Your task to perform on an android device: turn on bluetooth scan Image 0: 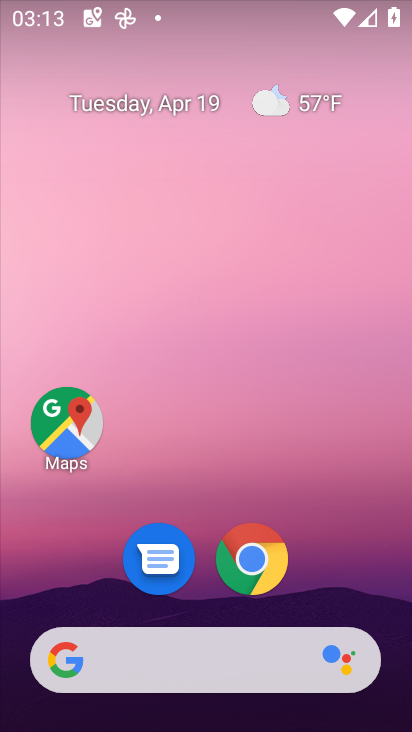
Step 0: drag from (210, 588) to (216, 116)
Your task to perform on an android device: turn on bluetooth scan Image 1: 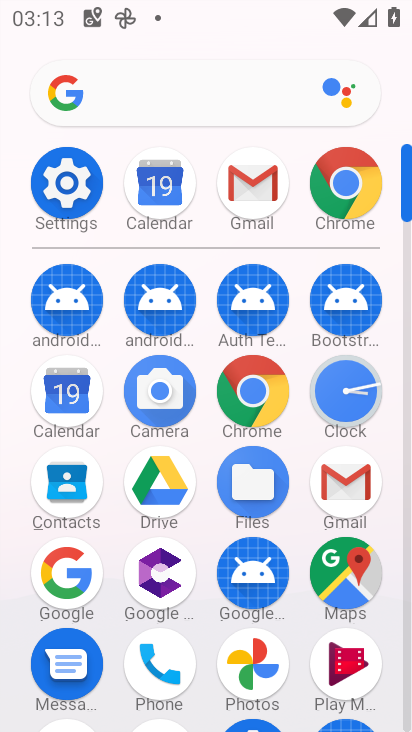
Step 1: click (62, 181)
Your task to perform on an android device: turn on bluetooth scan Image 2: 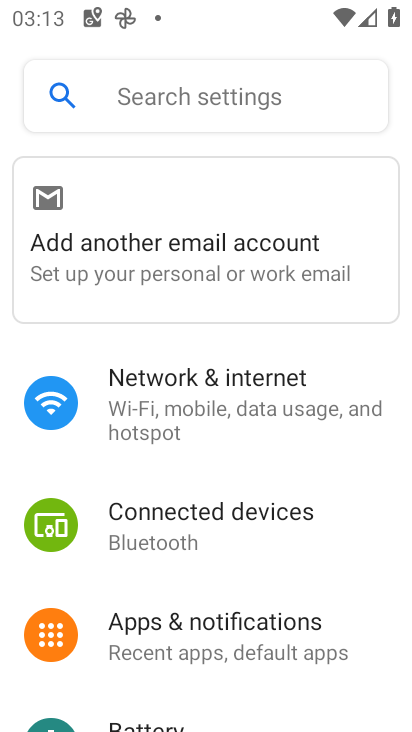
Step 2: drag from (192, 678) to (237, 125)
Your task to perform on an android device: turn on bluetooth scan Image 3: 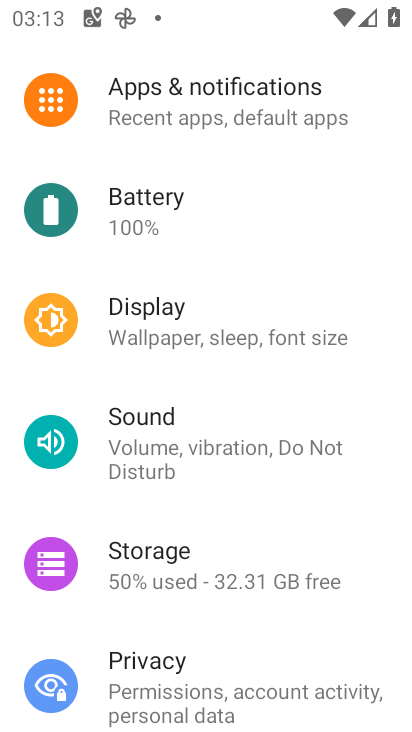
Step 3: drag from (161, 629) to (179, 63)
Your task to perform on an android device: turn on bluetooth scan Image 4: 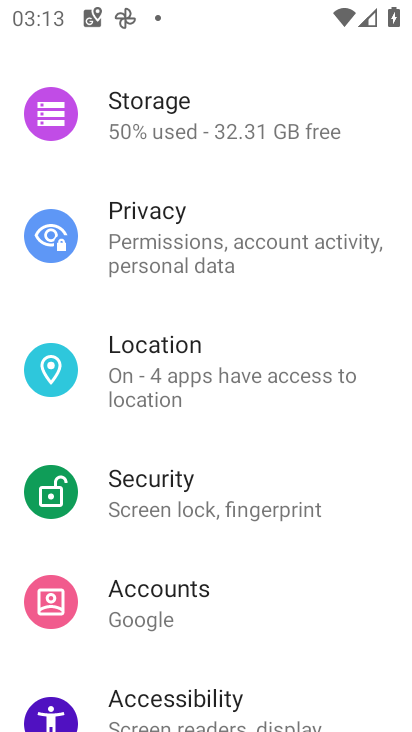
Step 4: click (194, 362)
Your task to perform on an android device: turn on bluetooth scan Image 5: 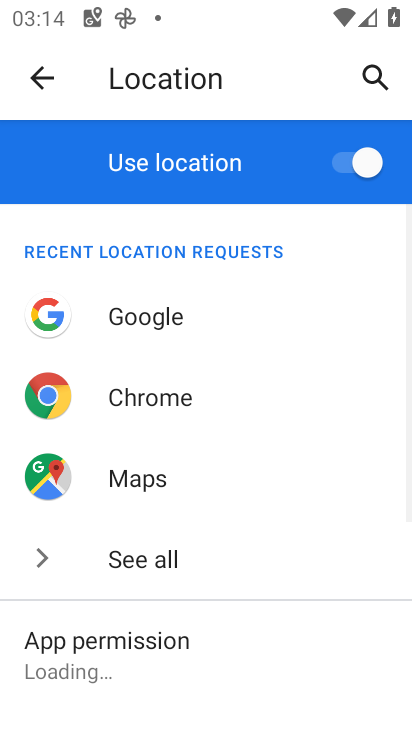
Step 5: drag from (188, 554) to (195, 170)
Your task to perform on an android device: turn on bluetooth scan Image 6: 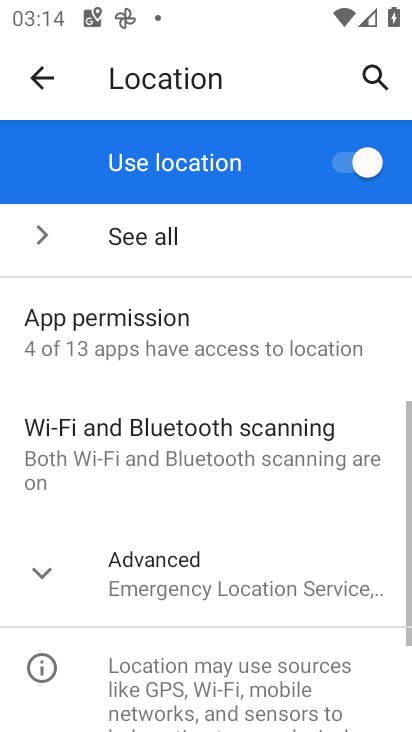
Step 6: click (173, 454)
Your task to perform on an android device: turn on bluetooth scan Image 7: 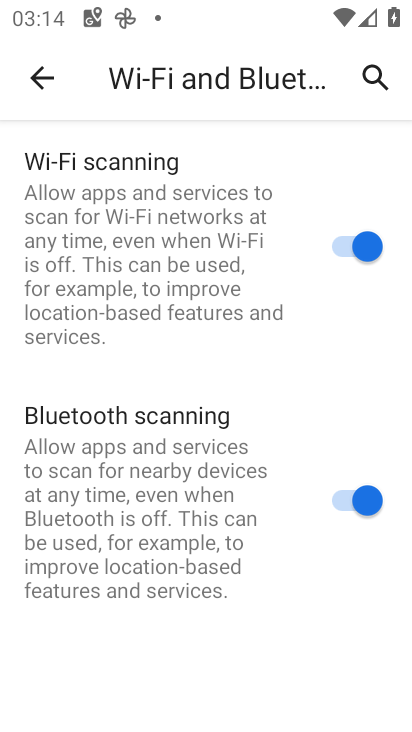
Step 7: task complete